Your task to perform on an android device: Open Google Maps and go to "Timeline" Image 0: 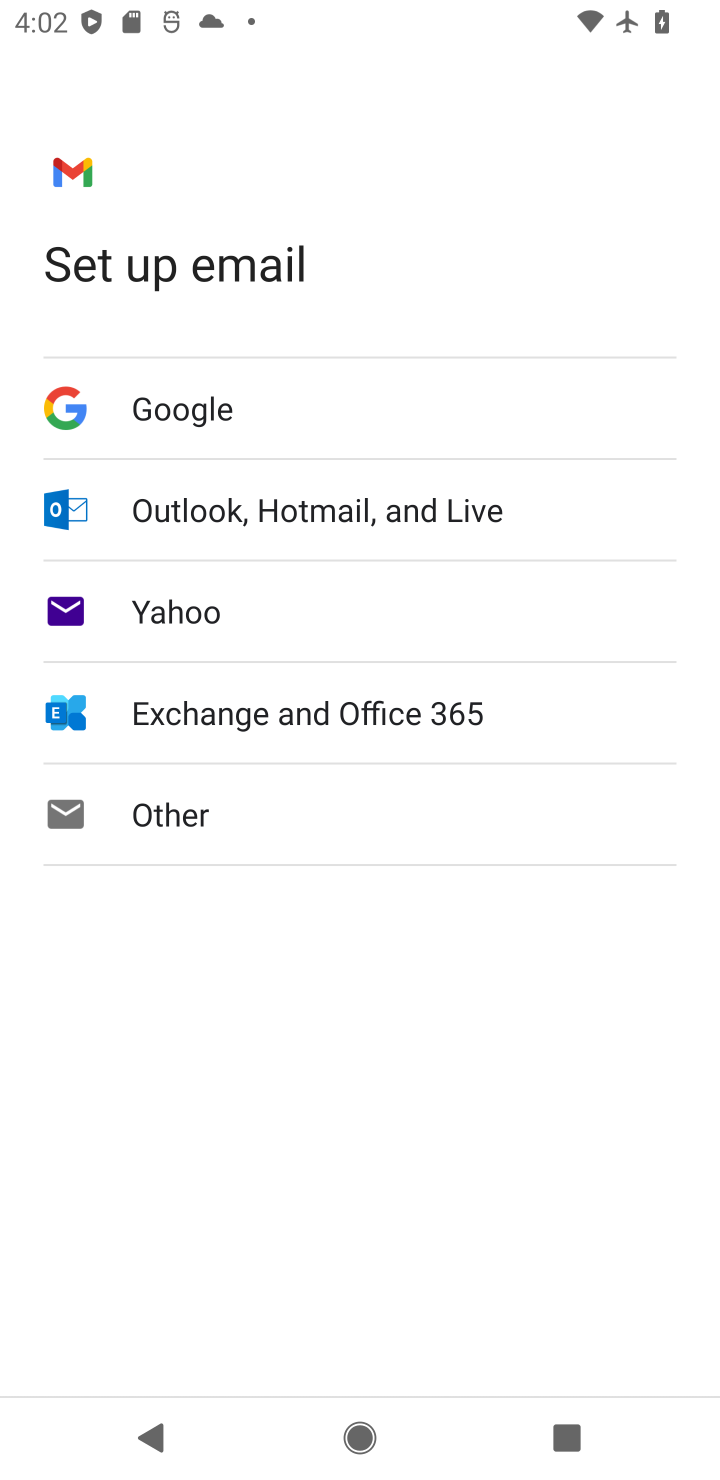
Step 0: press home button
Your task to perform on an android device: Open Google Maps and go to "Timeline" Image 1: 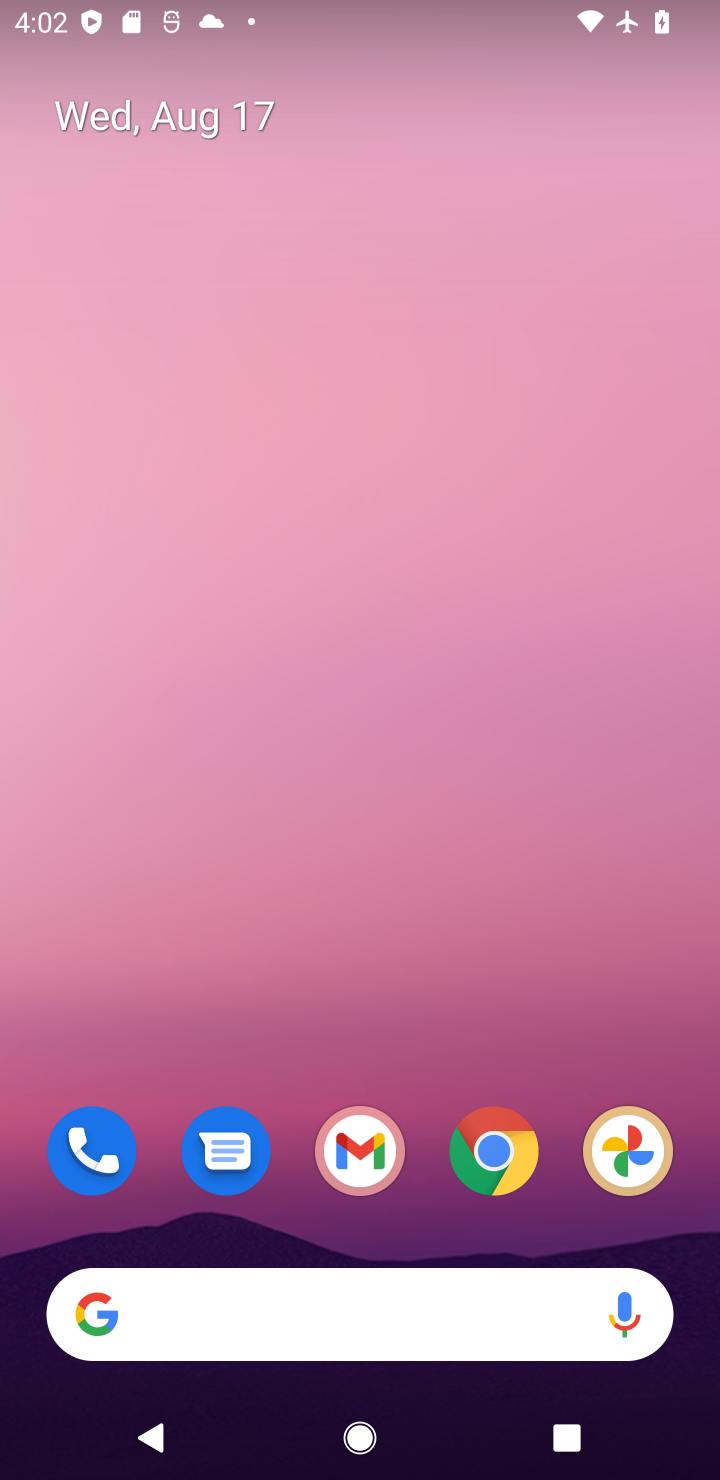
Step 1: drag from (485, 1265) to (402, 370)
Your task to perform on an android device: Open Google Maps and go to "Timeline" Image 2: 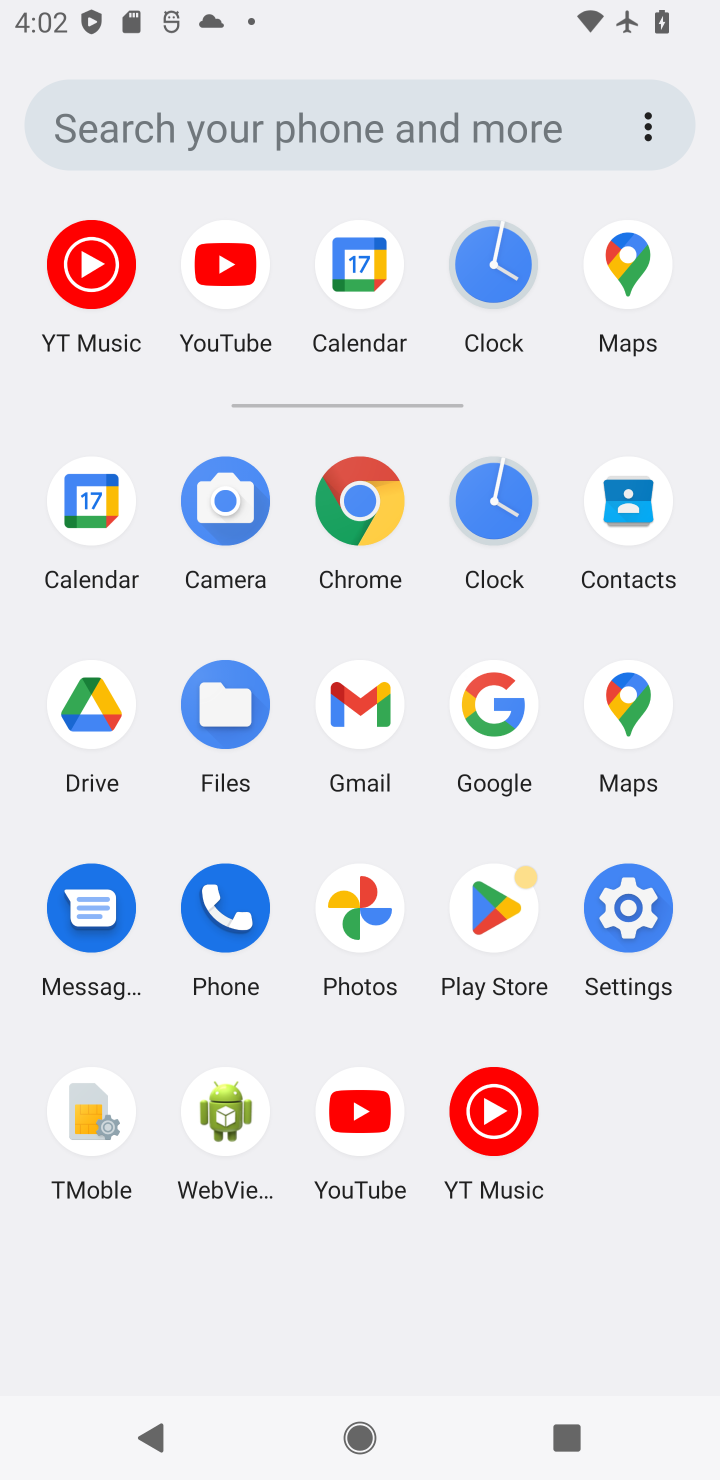
Step 2: click (615, 706)
Your task to perform on an android device: Open Google Maps and go to "Timeline" Image 3: 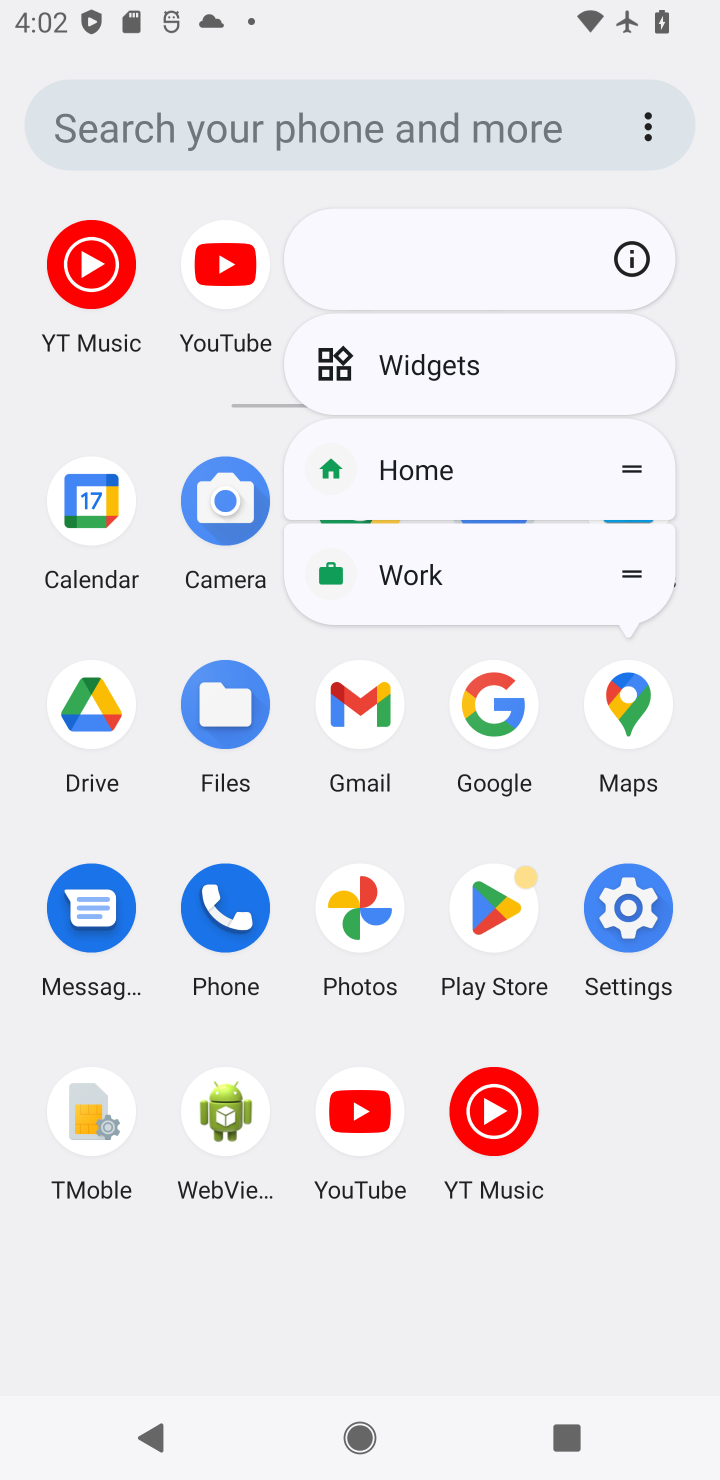
Step 3: click (626, 702)
Your task to perform on an android device: Open Google Maps and go to "Timeline" Image 4: 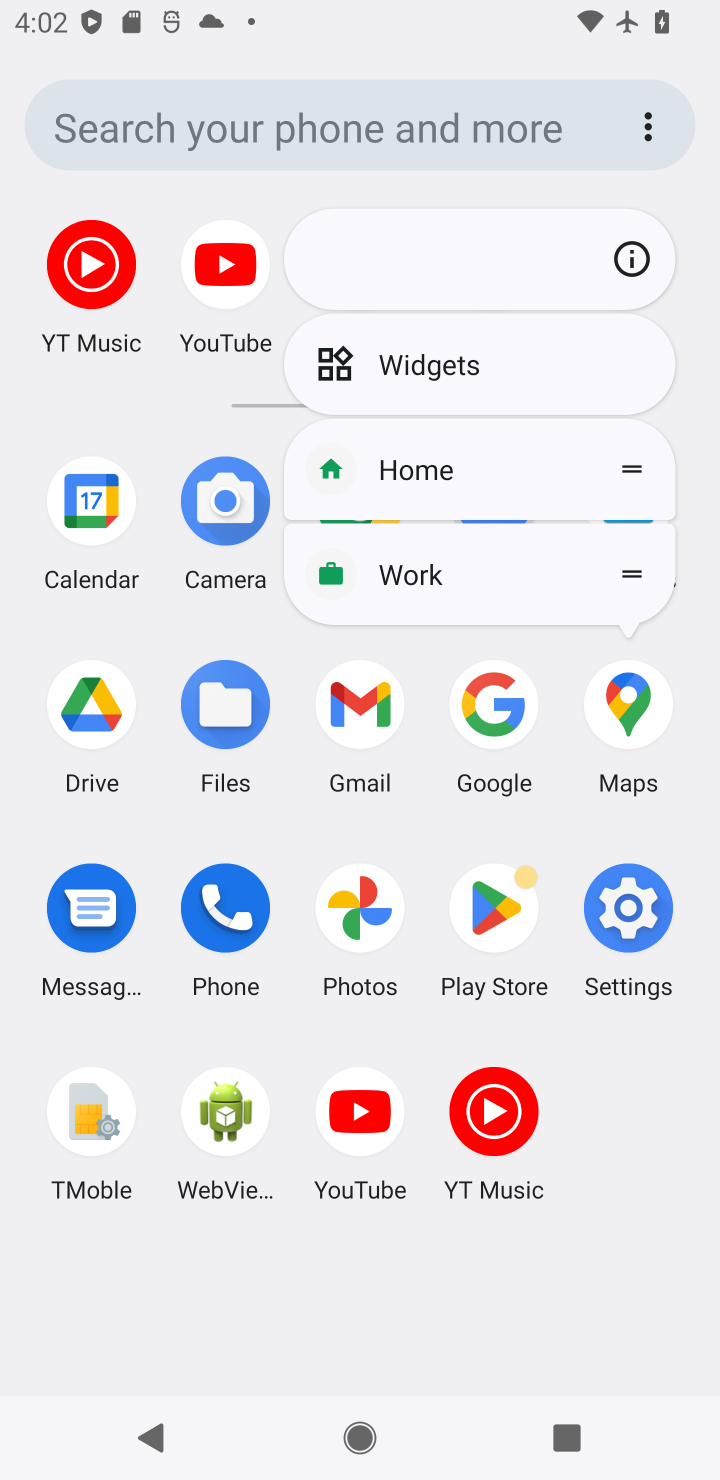
Step 4: click (626, 702)
Your task to perform on an android device: Open Google Maps and go to "Timeline" Image 5: 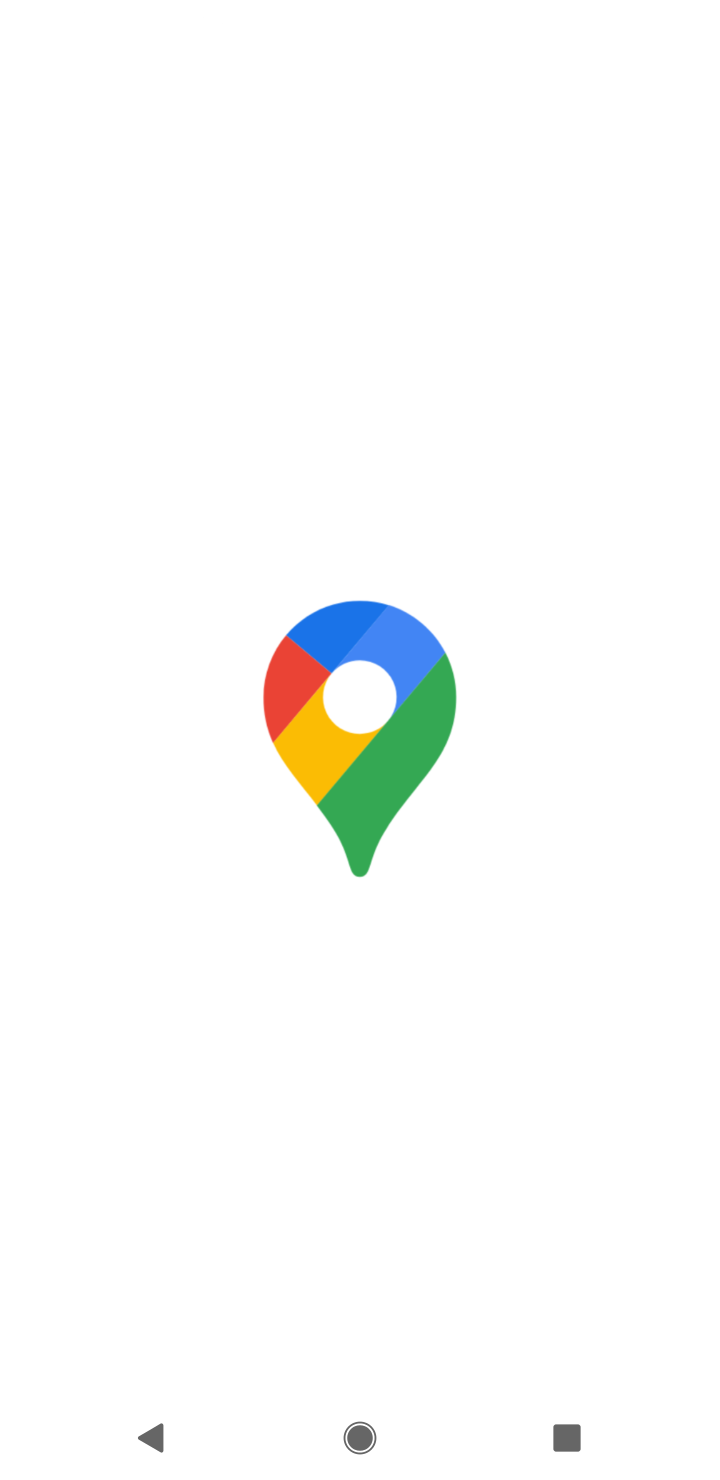
Step 5: task complete